Your task to perform on an android device: turn smart compose on in the gmail app Image 0: 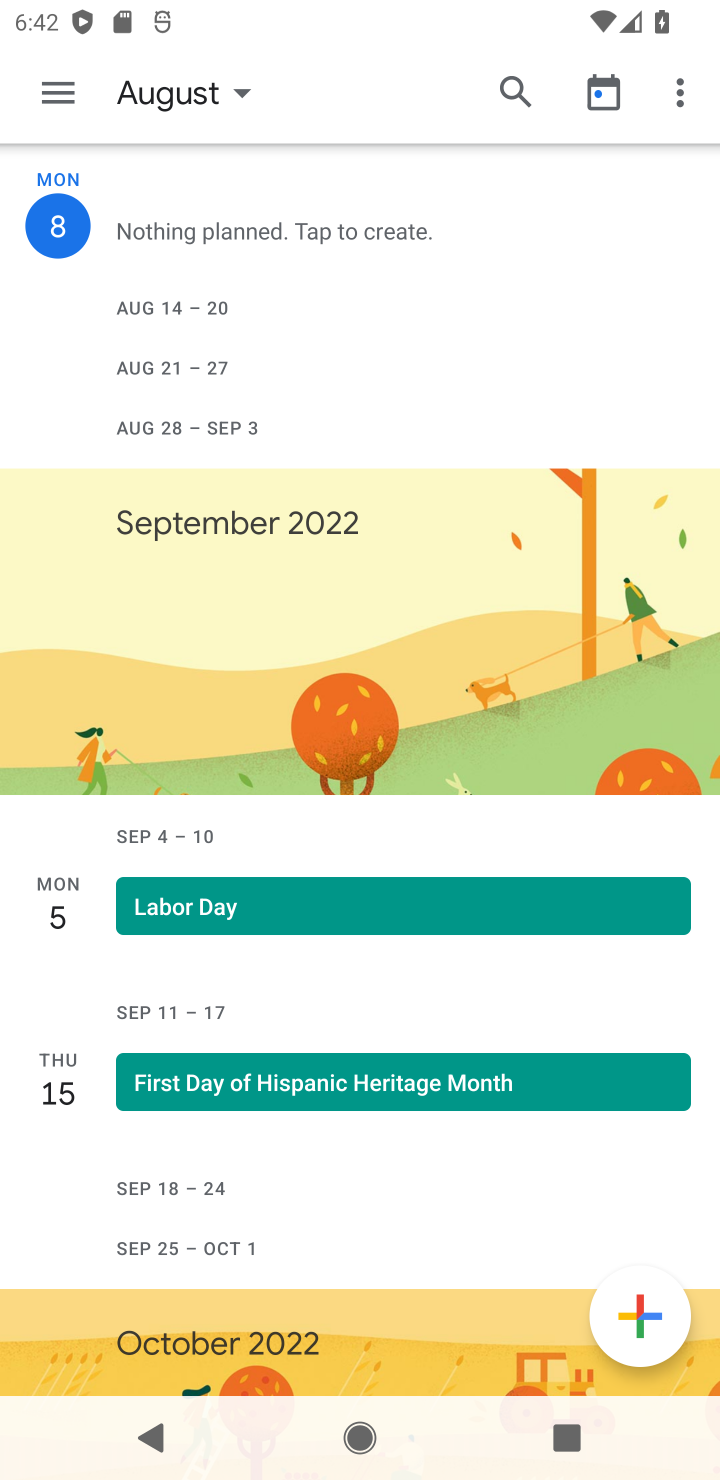
Step 0: press home button
Your task to perform on an android device: turn smart compose on in the gmail app Image 1: 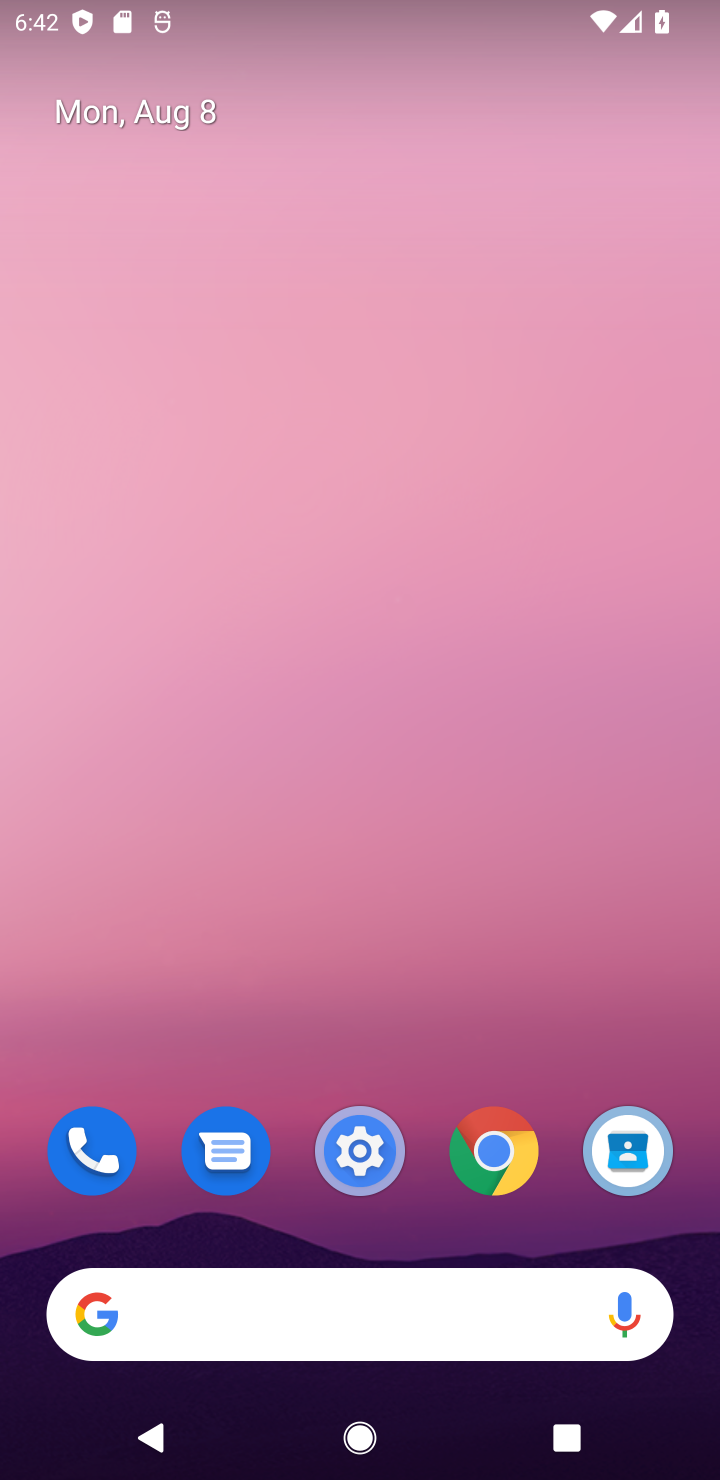
Step 1: drag from (436, 1041) to (456, 758)
Your task to perform on an android device: turn smart compose on in the gmail app Image 2: 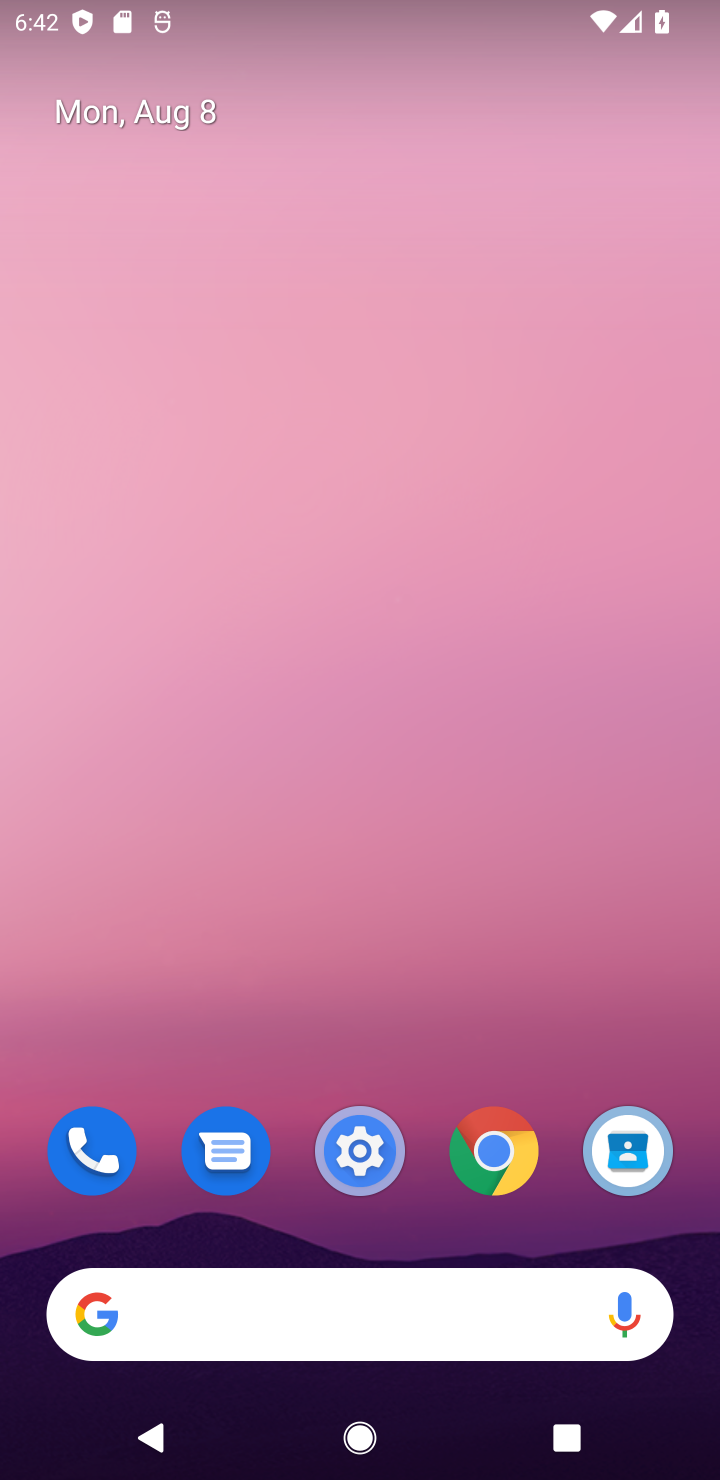
Step 2: drag from (328, 1021) to (453, 41)
Your task to perform on an android device: turn smart compose on in the gmail app Image 3: 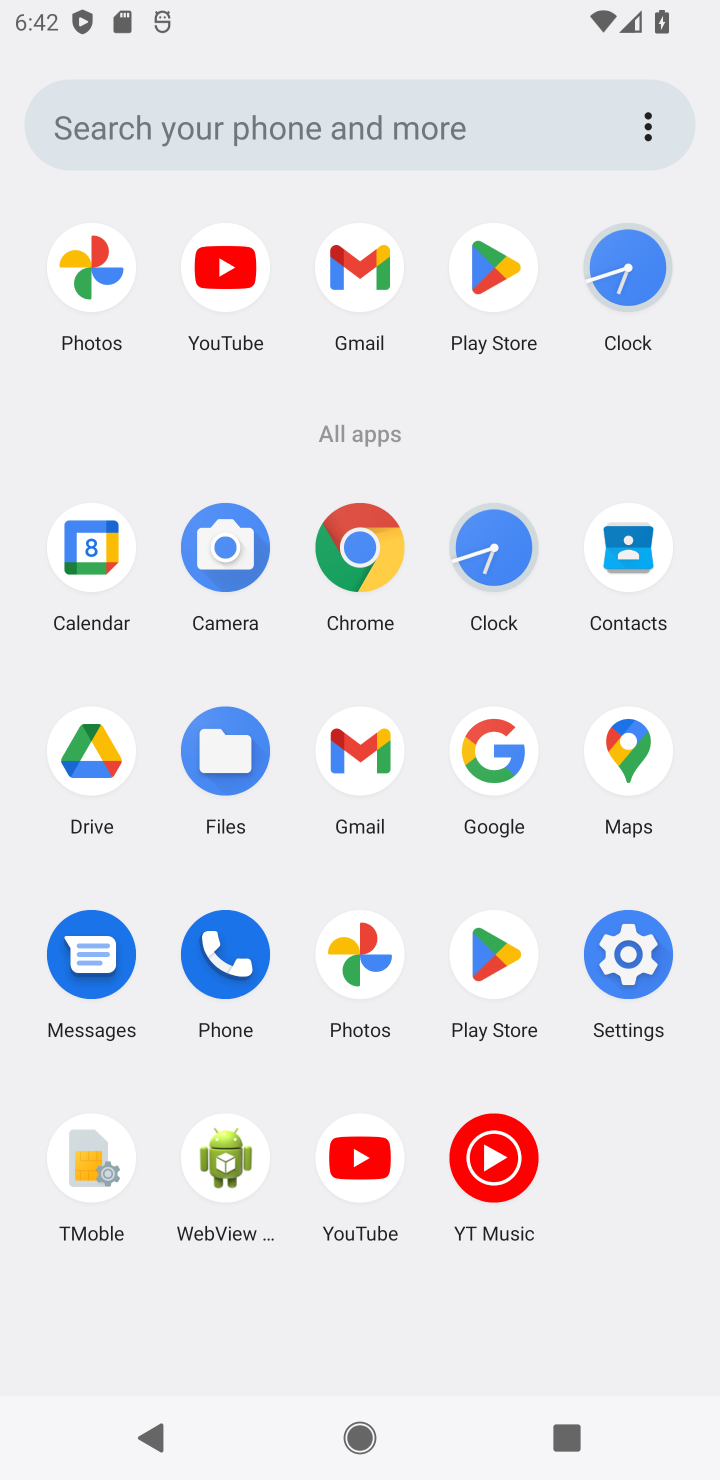
Step 3: click (373, 762)
Your task to perform on an android device: turn smart compose on in the gmail app Image 4: 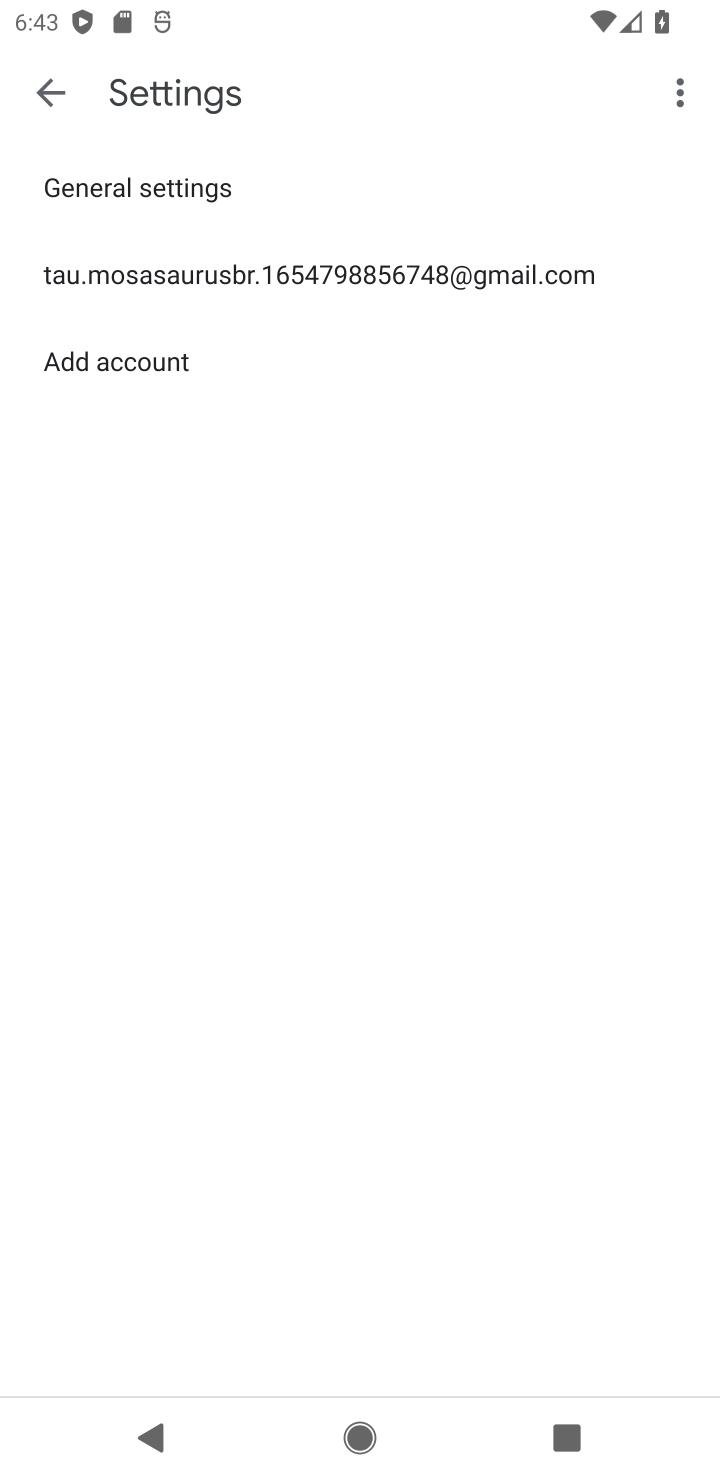
Step 4: click (251, 251)
Your task to perform on an android device: turn smart compose on in the gmail app Image 5: 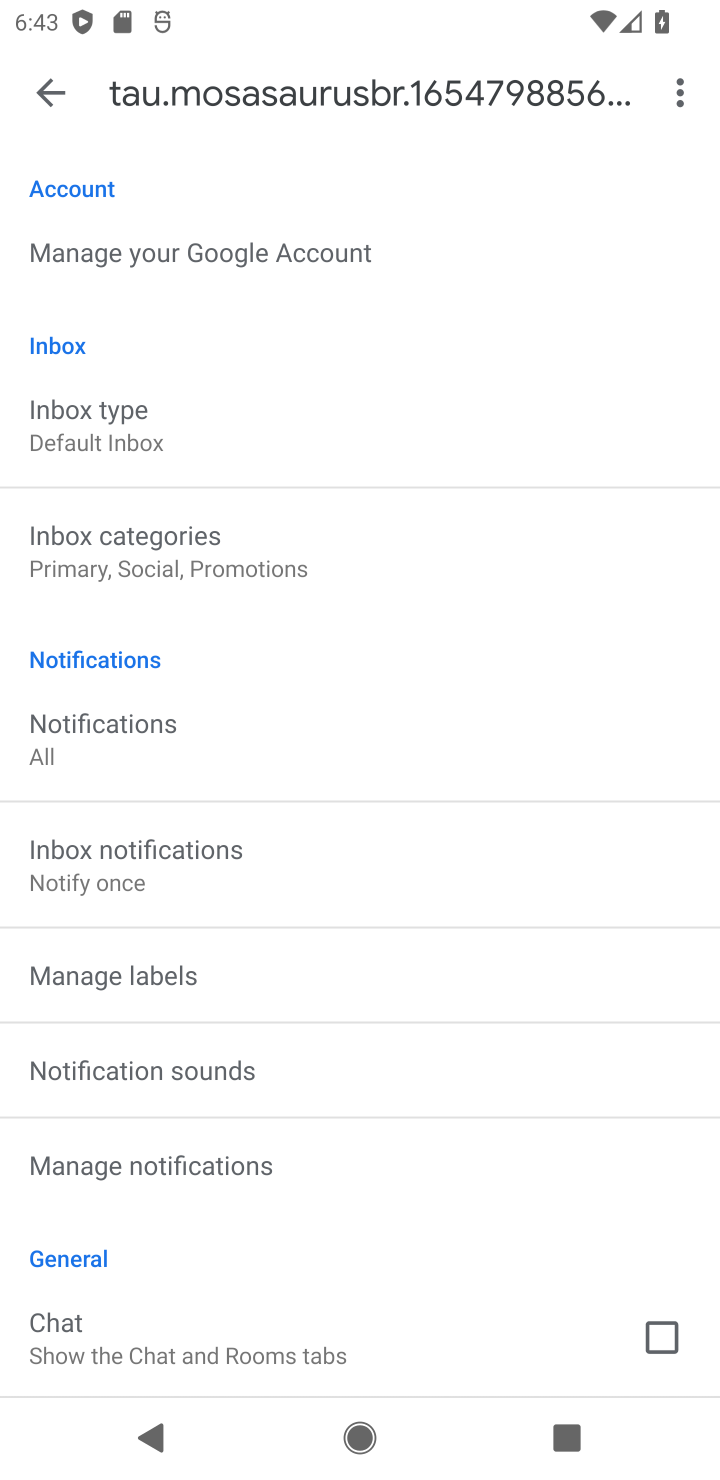
Step 5: task complete